Your task to perform on an android device: turn on notifications settings in the gmail app Image 0: 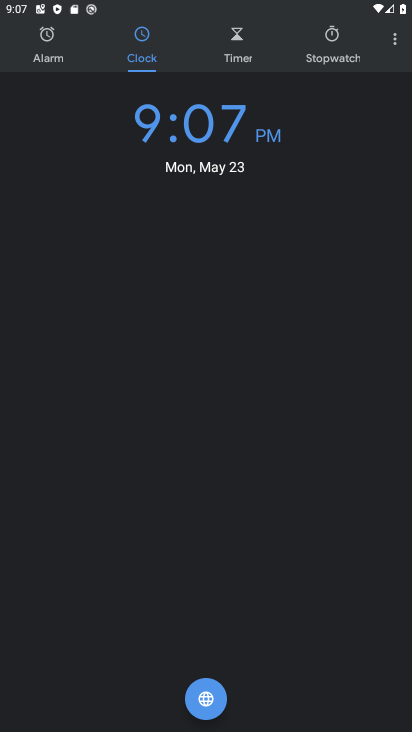
Step 0: press home button
Your task to perform on an android device: turn on notifications settings in the gmail app Image 1: 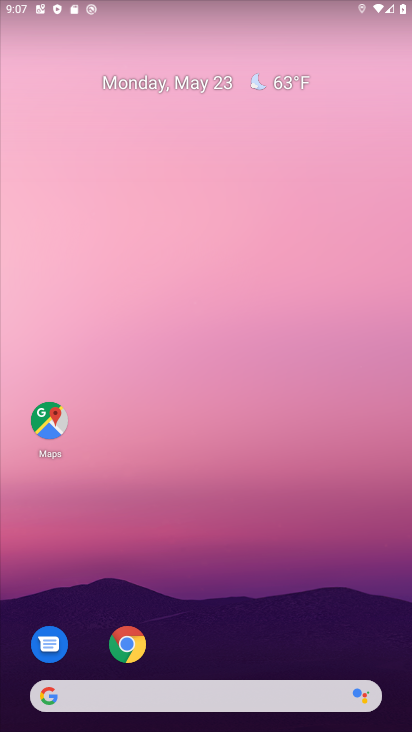
Step 1: drag from (180, 619) to (215, 329)
Your task to perform on an android device: turn on notifications settings in the gmail app Image 2: 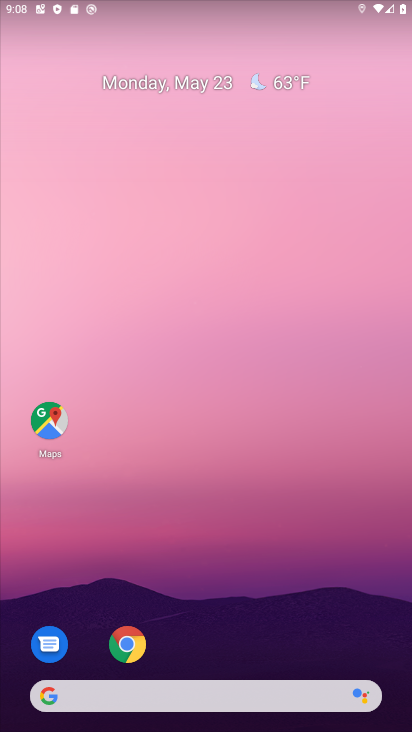
Step 2: drag from (229, 659) to (230, 130)
Your task to perform on an android device: turn on notifications settings in the gmail app Image 3: 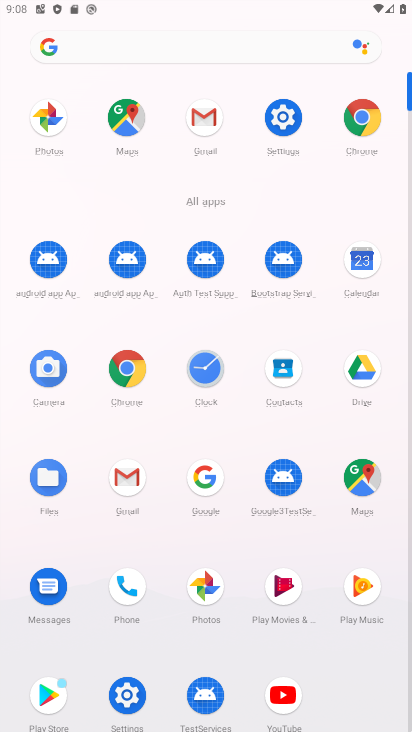
Step 3: click (121, 477)
Your task to perform on an android device: turn on notifications settings in the gmail app Image 4: 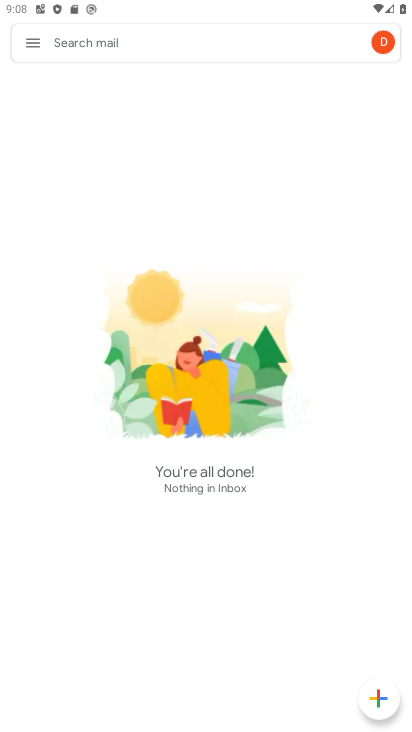
Step 4: click (28, 32)
Your task to perform on an android device: turn on notifications settings in the gmail app Image 5: 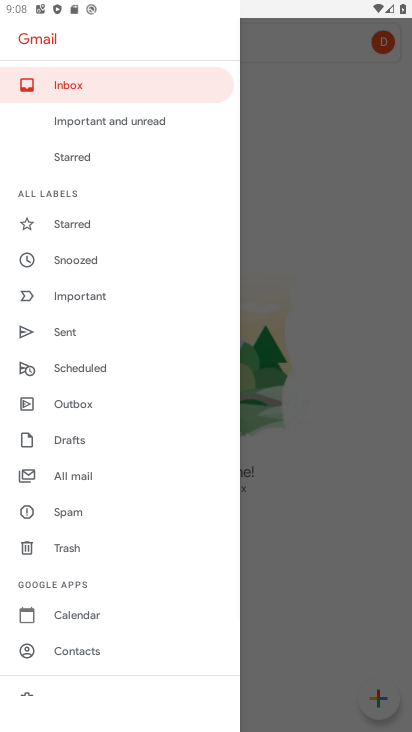
Step 5: drag from (90, 626) to (96, 137)
Your task to perform on an android device: turn on notifications settings in the gmail app Image 6: 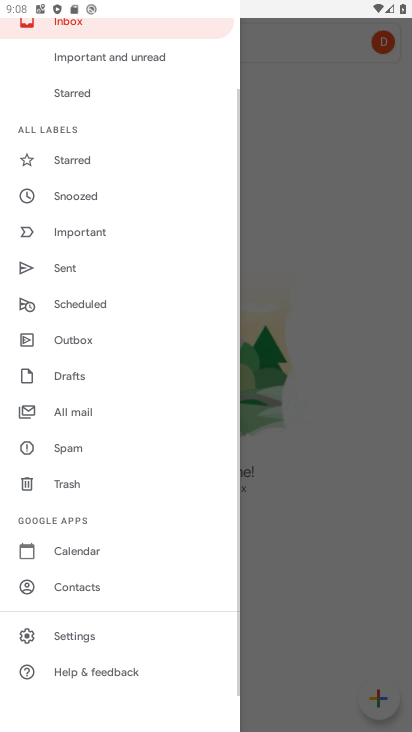
Step 6: click (83, 633)
Your task to perform on an android device: turn on notifications settings in the gmail app Image 7: 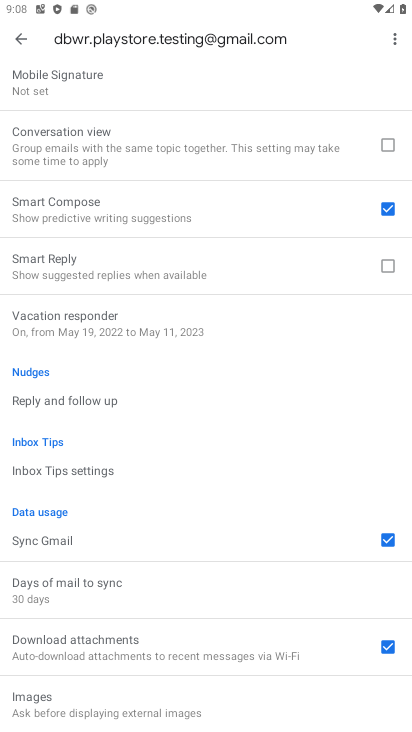
Step 7: click (20, 37)
Your task to perform on an android device: turn on notifications settings in the gmail app Image 8: 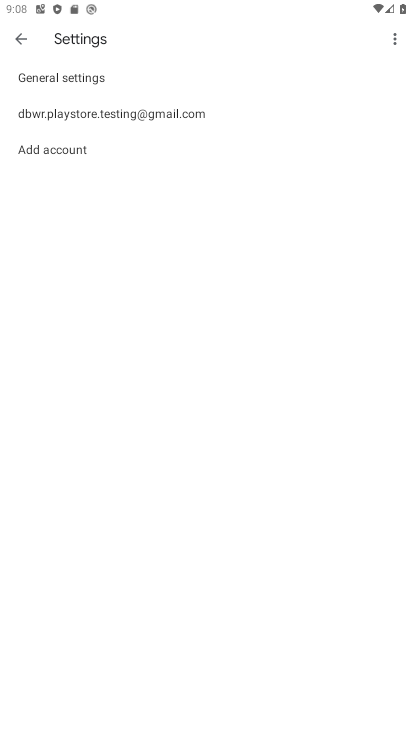
Step 8: click (119, 72)
Your task to perform on an android device: turn on notifications settings in the gmail app Image 9: 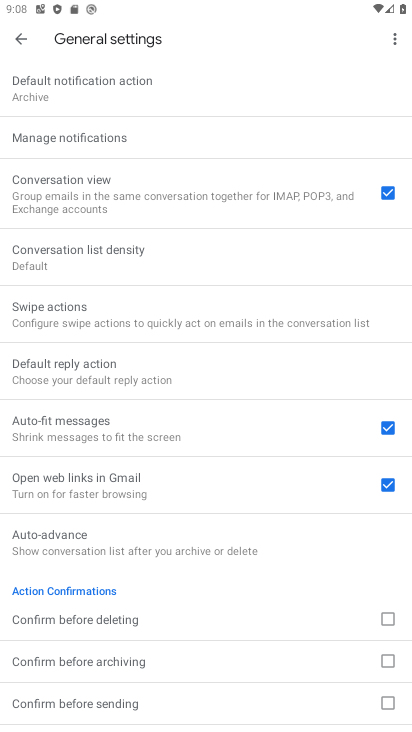
Step 9: click (131, 127)
Your task to perform on an android device: turn on notifications settings in the gmail app Image 10: 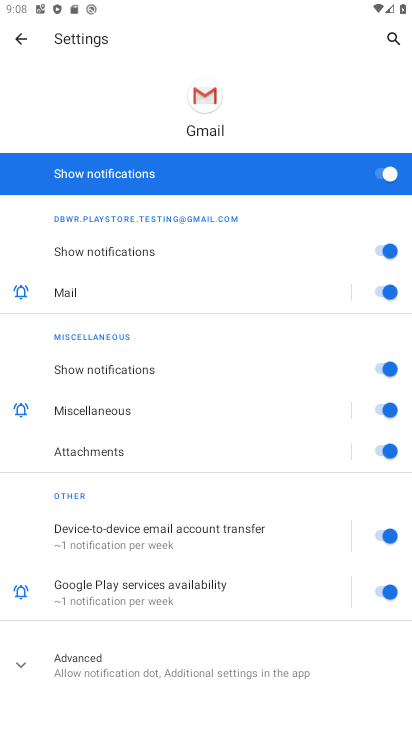
Step 10: task complete